Your task to perform on an android device: set default search engine in the chrome app Image 0: 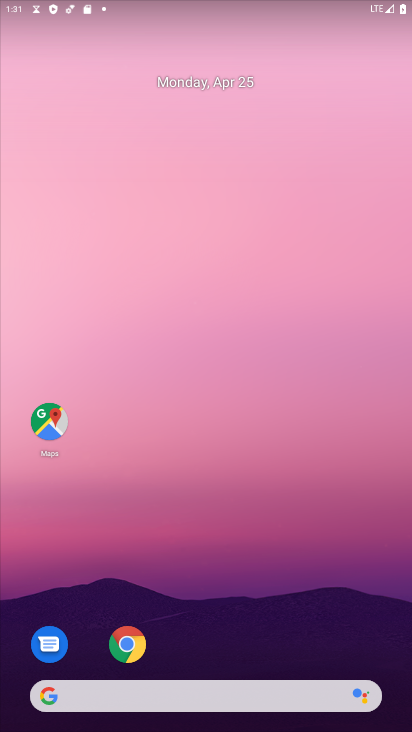
Step 0: click (376, 67)
Your task to perform on an android device: set default search engine in the chrome app Image 1: 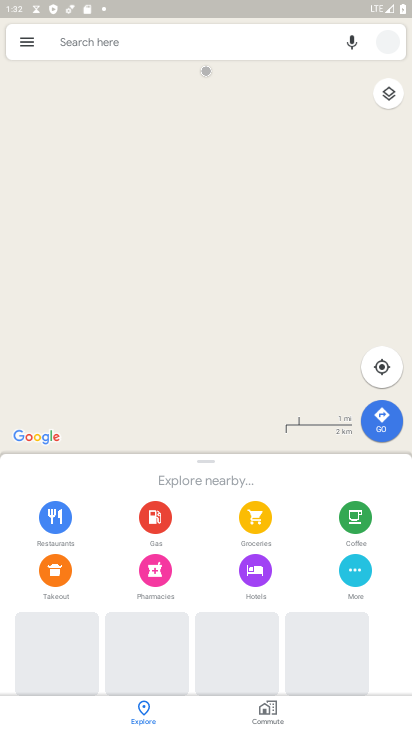
Step 1: press home button
Your task to perform on an android device: set default search engine in the chrome app Image 2: 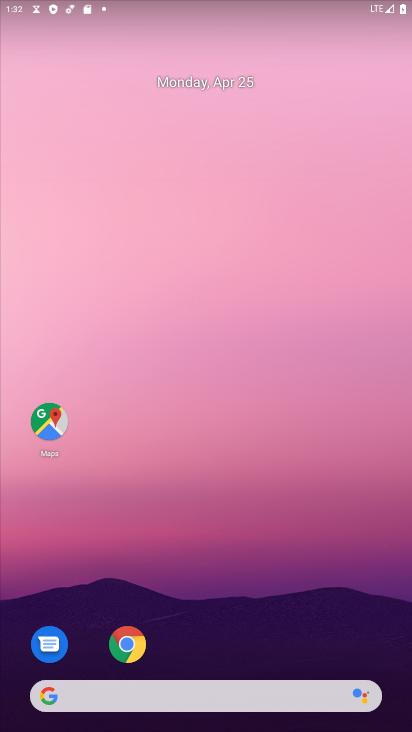
Step 2: click (130, 647)
Your task to perform on an android device: set default search engine in the chrome app Image 3: 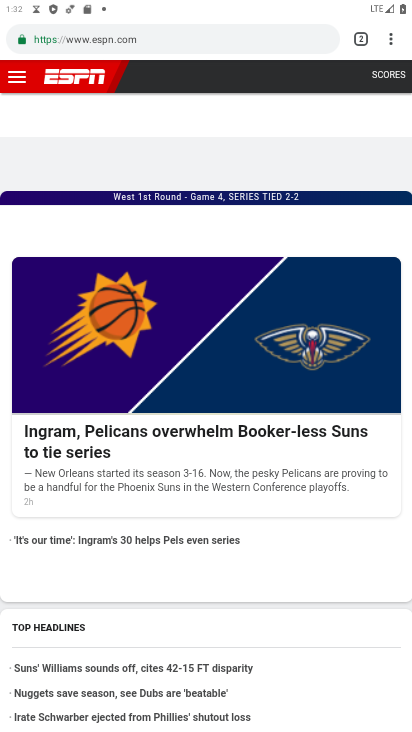
Step 3: drag from (392, 40) to (253, 522)
Your task to perform on an android device: set default search engine in the chrome app Image 4: 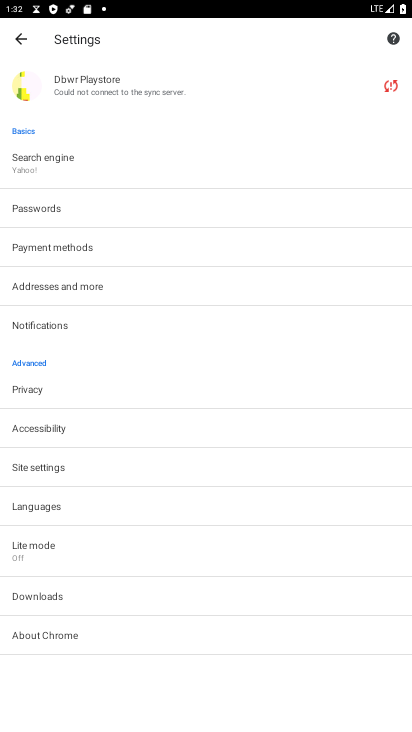
Step 4: click (42, 162)
Your task to perform on an android device: set default search engine in the chrome app Image 5: 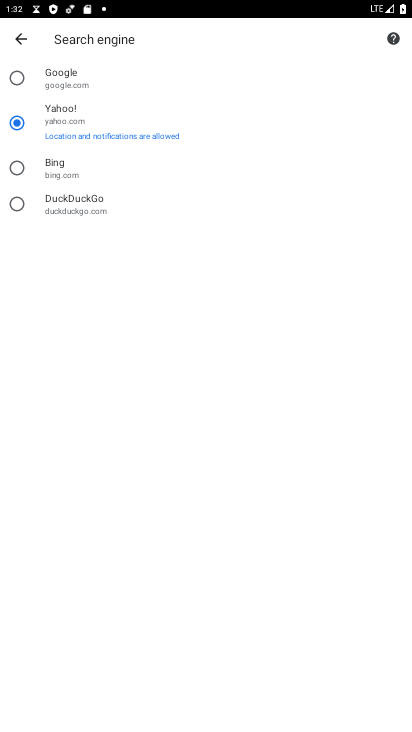
Step 5: click (23, 173)
Your task to perform on an android device: set default search engine in the chrome app Image 6: 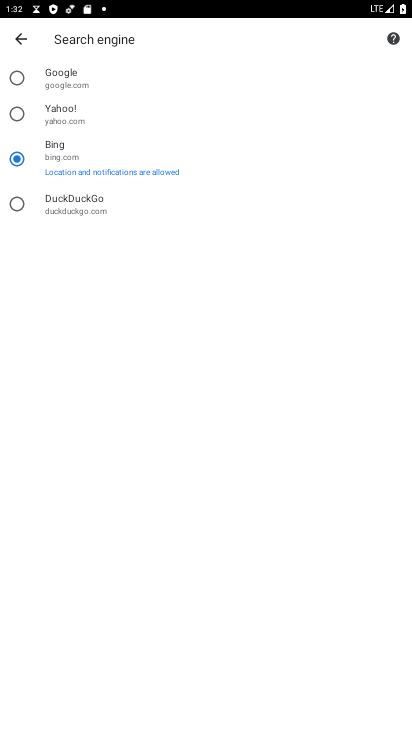
Step 6: task complete